Your task to perform on an android device: change the clock display to digital Image 0: 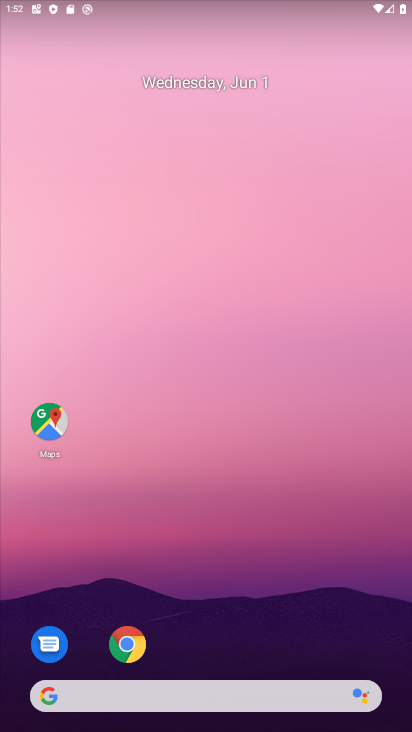
Step 0: drag from (214, 655) to (229, 235)
Your task to perform on an android device: change the clock display to digital Image 1: 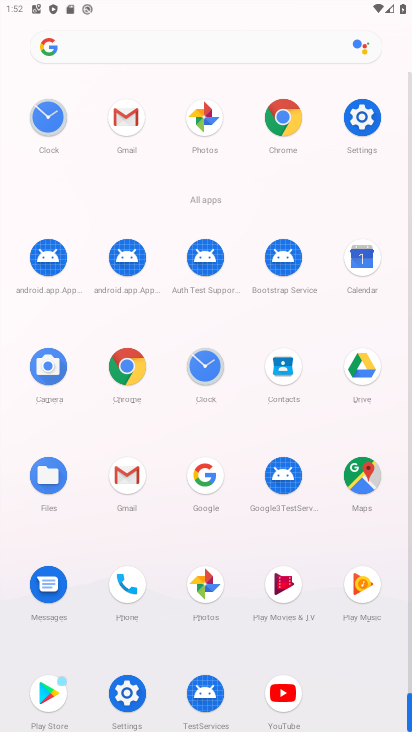
Step 1: click (206, 365)
Your task to perform on an android device: change the clock display to digital Image 2: 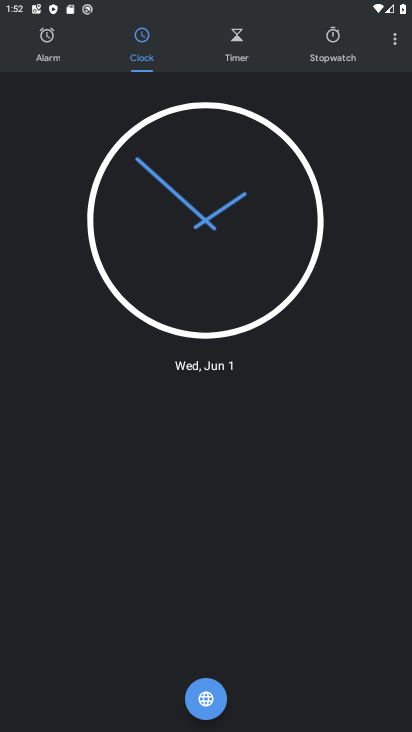
Step 2: click (395, 38)
Your task to perform on an android device: change the clock display to digital Image 3: 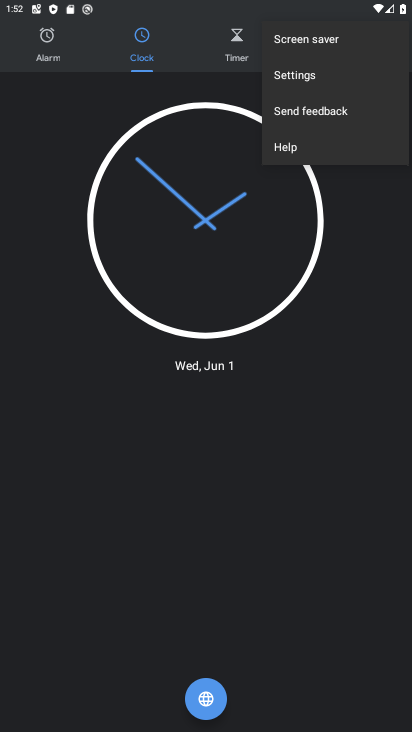
Step 3: click (324, 77)
Your task to perform on an android device: change the clock display to digital Image 4: 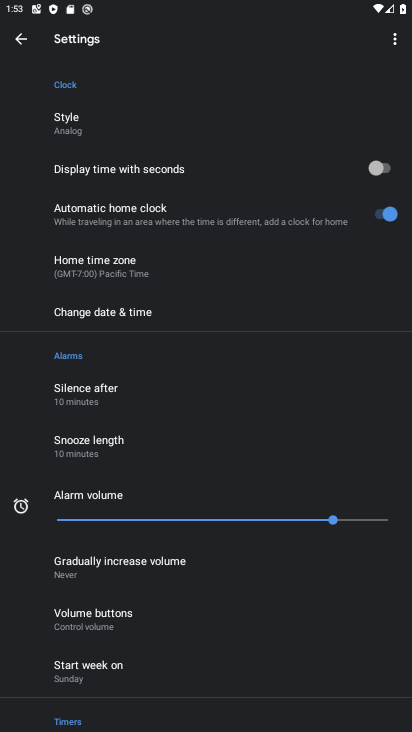
Step 4: drag from (181, 596) to (145, 185)
Your task to perform on an android device: change the clock display to digital Image 5: 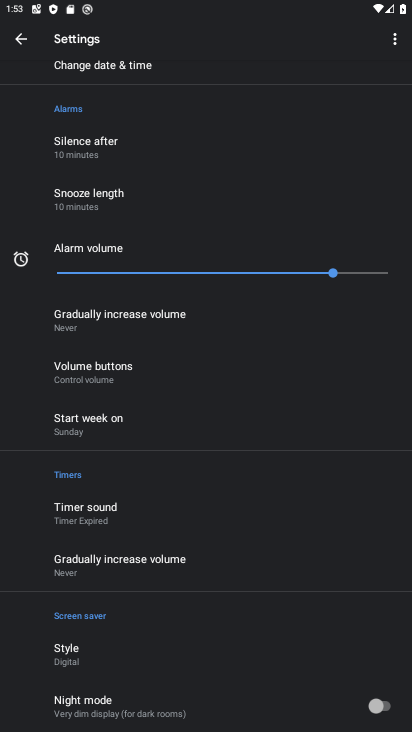
Step 5: drag from (106, 609) to (98, 417)
Your task to perform on an android device: change the clock display to digital Image 6: 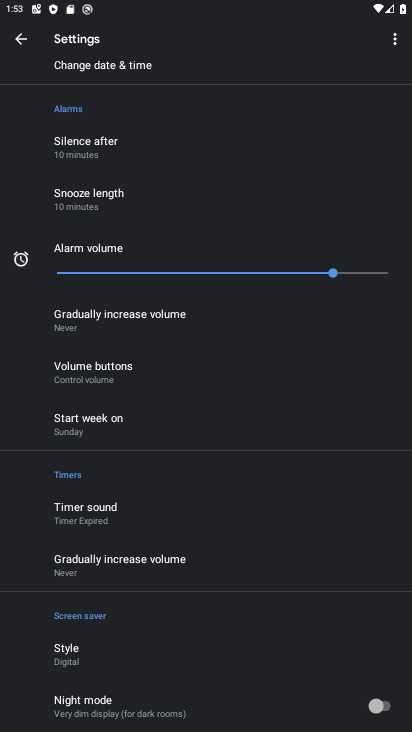
Step 6: drag from (143, 189) to (136, 668)
Your task to perform on an android device: change the clock display to digital Image 7: 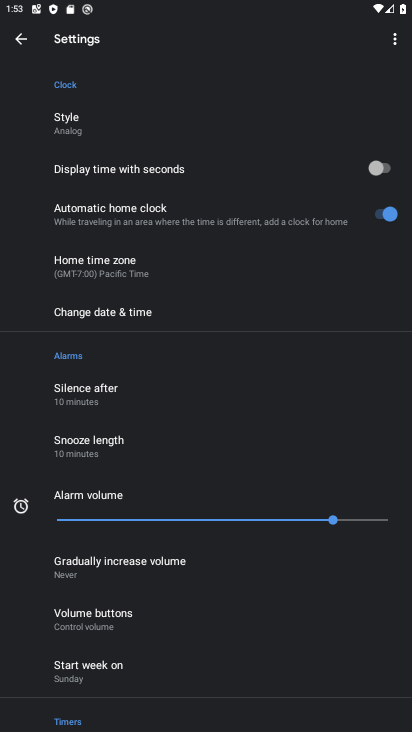
Step 7: click (64, 126)
Your task to perform on an android device: change the clock display to digital Image 8: 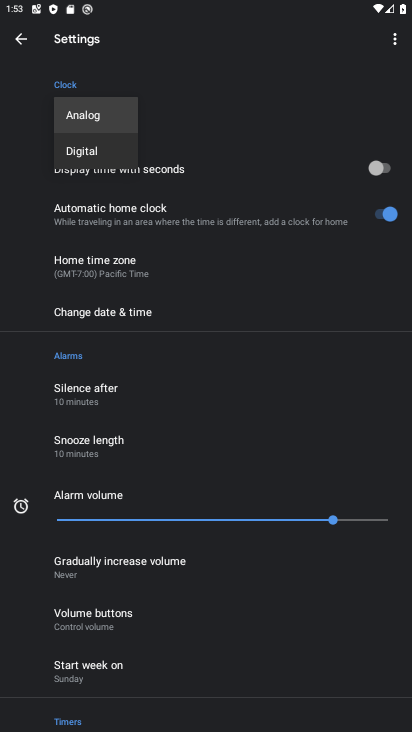
Step 8: click (72, 156)
Your task to perform on an android device: change the clock display to digital Image 9: 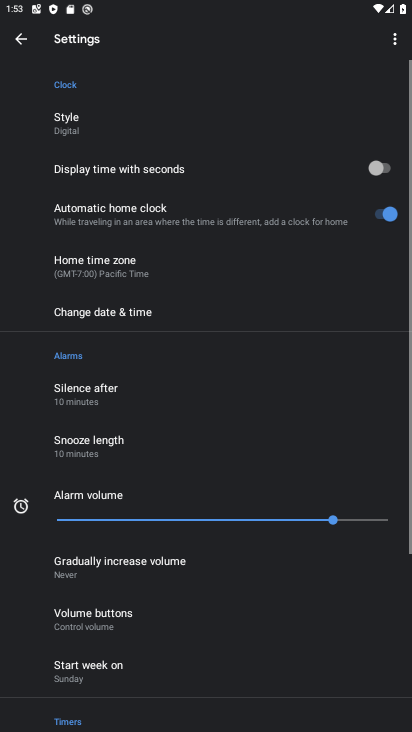
Step 9: task complete